Your task to perform on an android device: Open privacy settings Image 0: 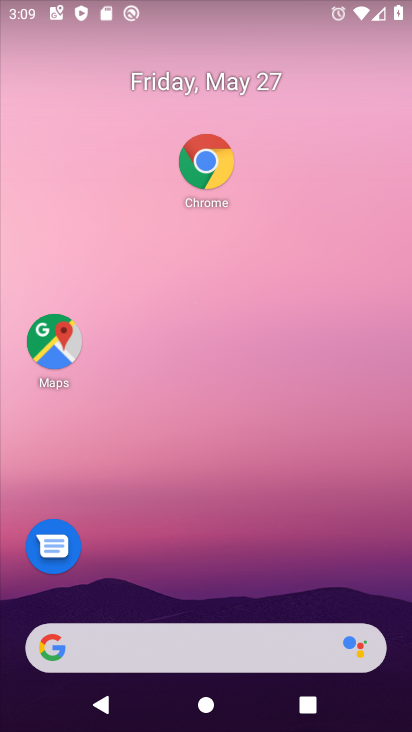
Step 0: drag from (220, 576) to (251, 168)
Your task to perform on an android device: Open privacy settings Image 1: 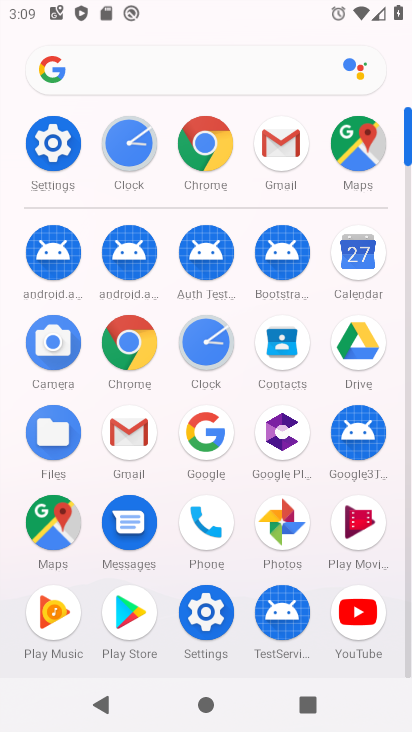
Step 1: click (47, 143)
Your task to perform on an android device: Open privacy settings Image 2: 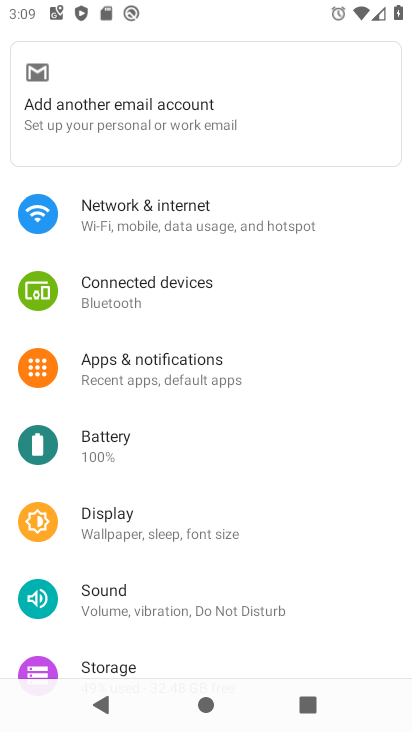
Step 2: drag from (183, 582) to (267, 177)
Your task to perform on an android device: Open privacy settings Image 3: 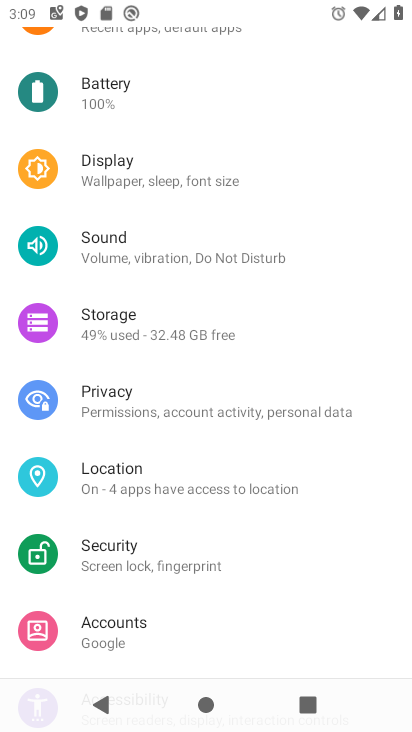
Step 3: click (125, 398)
Your task to perform on an android device: Open privacy settings Image 4: 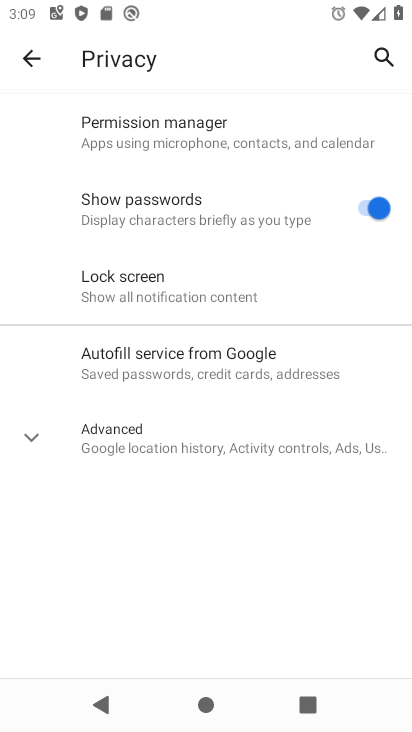
Step 4: task complete